Your task to perform on an android device: What's the weather? Image 0: 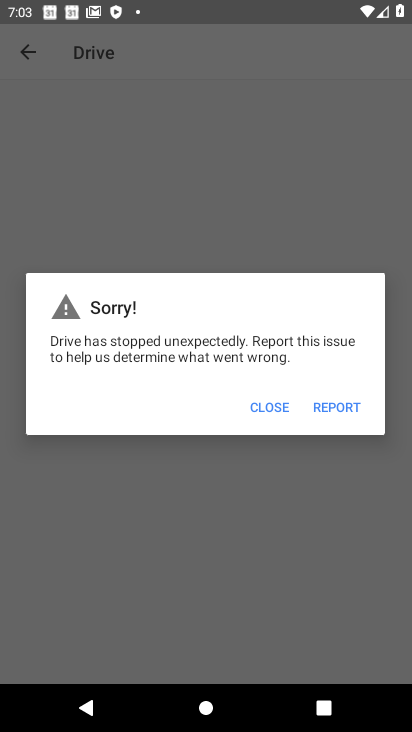
Step 0: press home button
Your task to perform on an android device: What's the weather? Image 1: 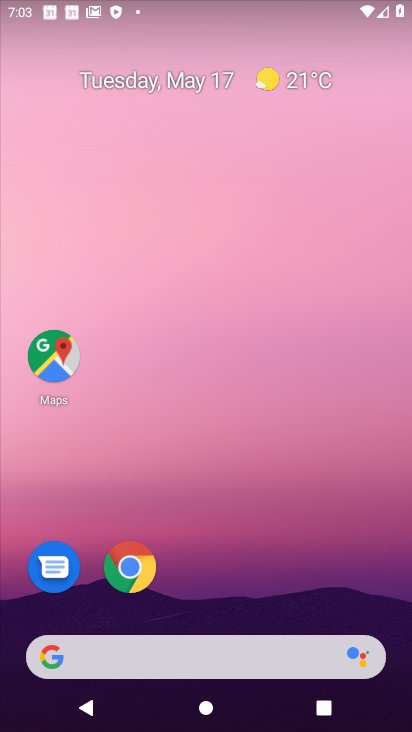
Step 1: click (178, 666)
Your task to perform on an android device: What's the weather? Image 2: 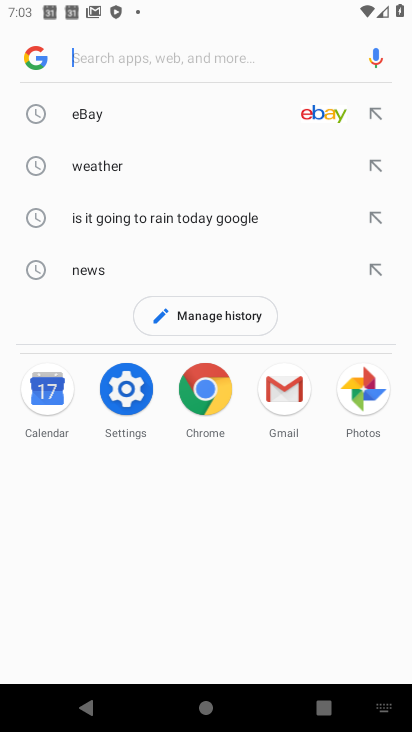
Step 2: click (111, 164)
Your task to perform on an android device: What's the weather? Image 3: 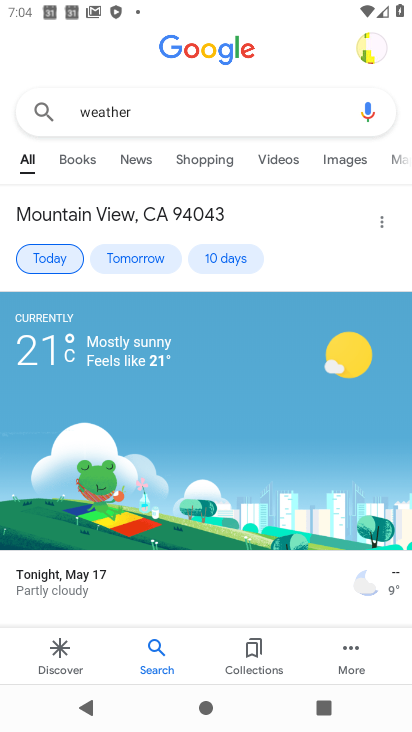
Step 3: task complete